Your task to perform on an android device: toggle show notifications on the lock screen Image 0: 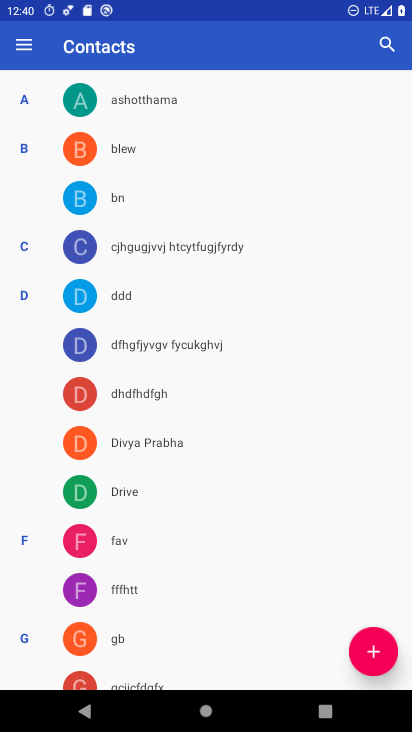
Step 0: press home button
Your task to perform on an android device: toggle show notifications on the lock screen Image 1: 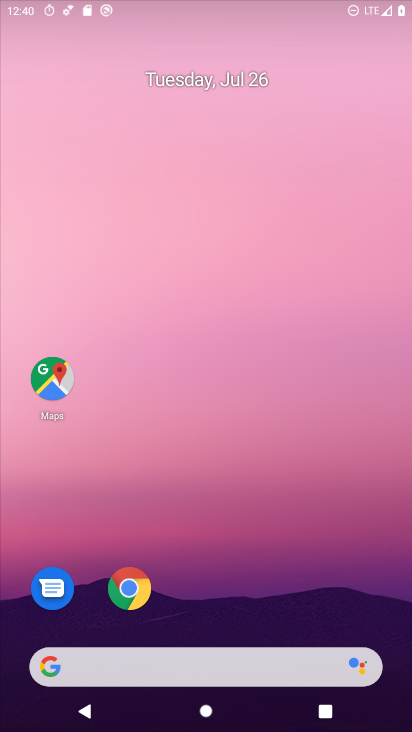
Step 1: drag from (175, 644) to (191, 186)
Your task to perform on an android device: toggle show notifications on the lock screen Image 2: 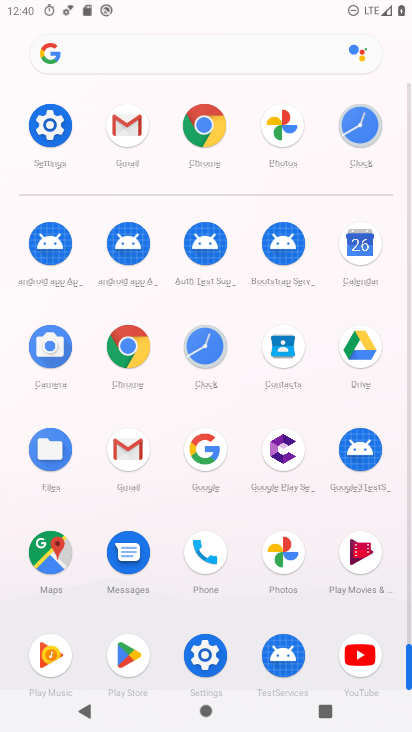
Step 2: click (200, 668)
Your task to perform on an android device: toggle show notifications on the lock screen Image 3: 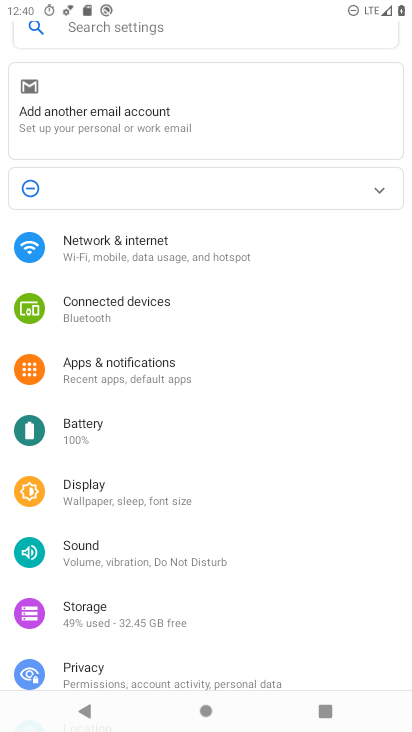
Step 3: click (153, 369)
Your task to perform on an android device: toggle show notifications on the lock screen Image 4: 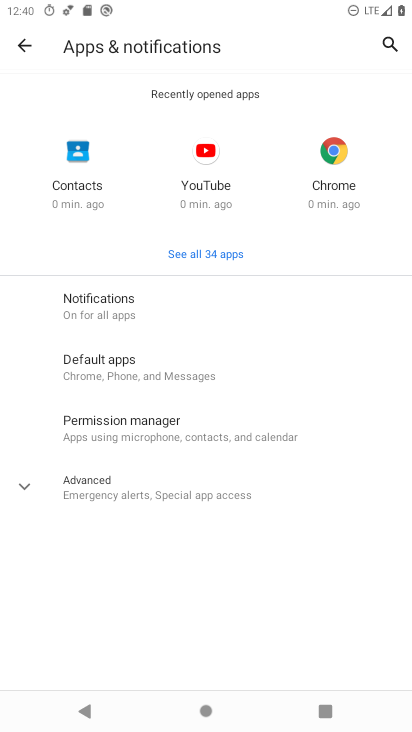
Step 4: click (172, 310)
Your task to perform on an android device: toggle show notifications on the lock screen Image 5: 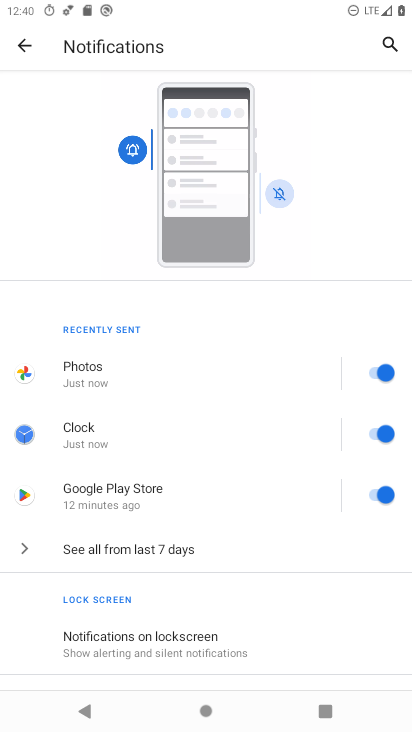
Step 5: click (138, 633)
Your task to perform on an android device: toggle show notifications on the lock screen Image 6: 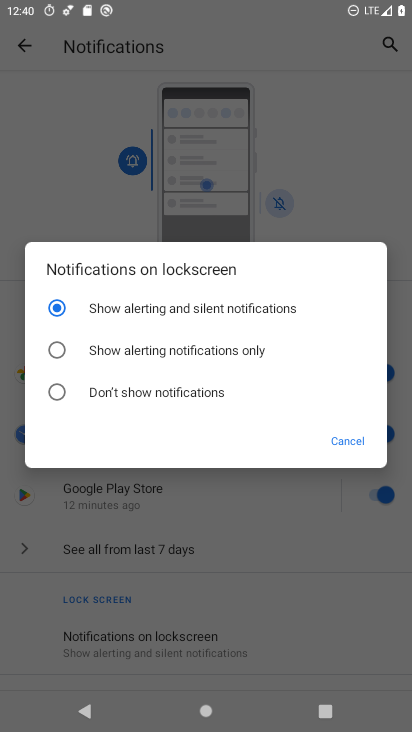
Step 6: click (127, 391)
Your task to perform on an android device: toggle show notifications on the lock screen Image 7: 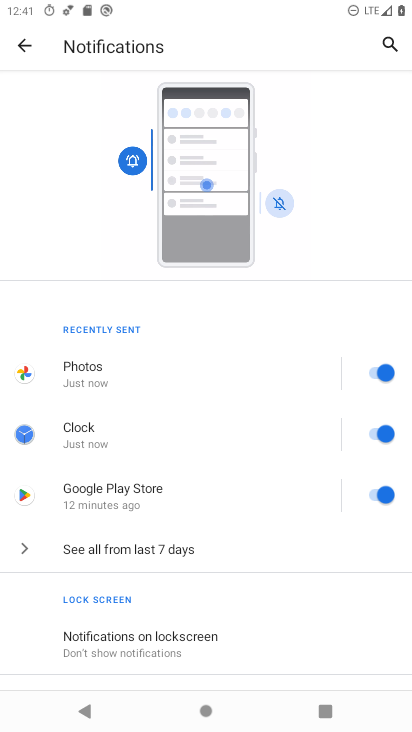
Step 7: task complete